Your task to perform on an android device: check the backup settings in the google photos Image 0: 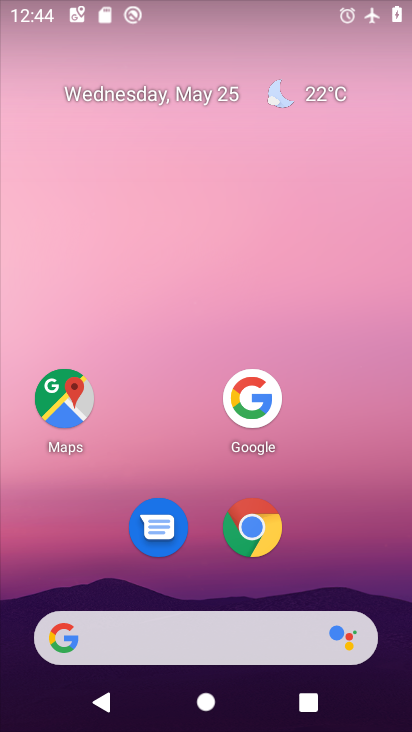
Step 0: drag from (156, 645) to (307, 95)
Your task to perform on an android device: check the backup settings in the google photos Image 1: 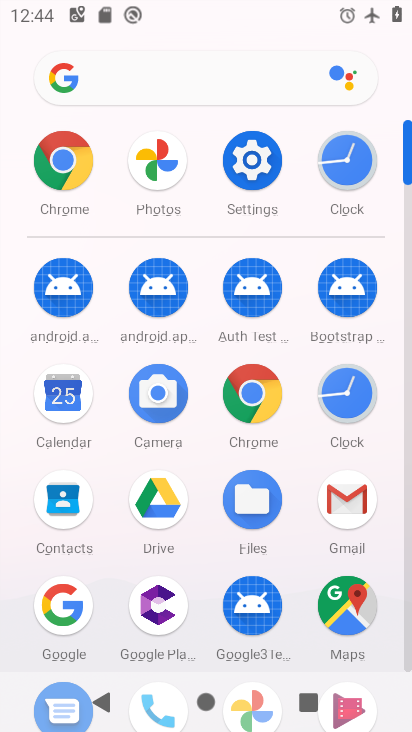
Step 1: click (150, 166)
Your task to perform on an android device: check the backup settings in the google photos Image 2: 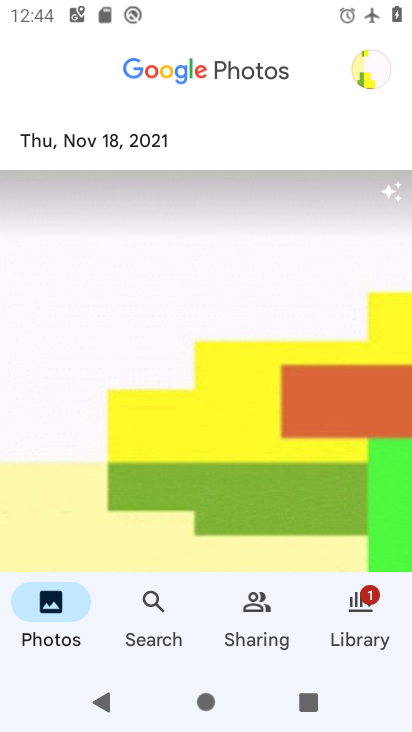
Step 2: click (375, 72)
Your task to perform on an android device: check the backup settings in the google photos Image 3: 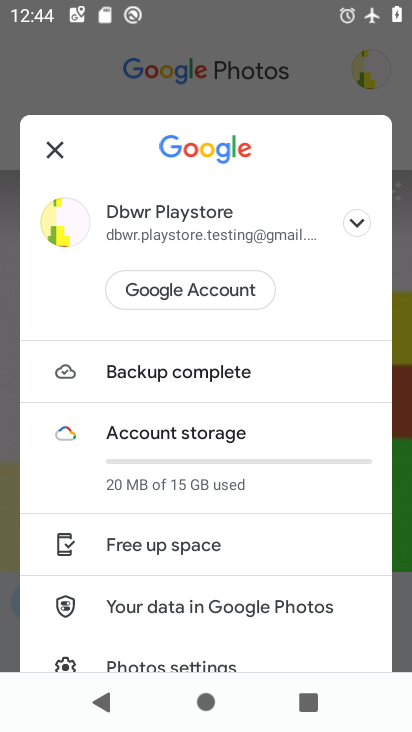
Step 3: drag from (193, 594) to (312, 377)
Your task to perform on an android device: check the backup settings in the google photos Image 4: 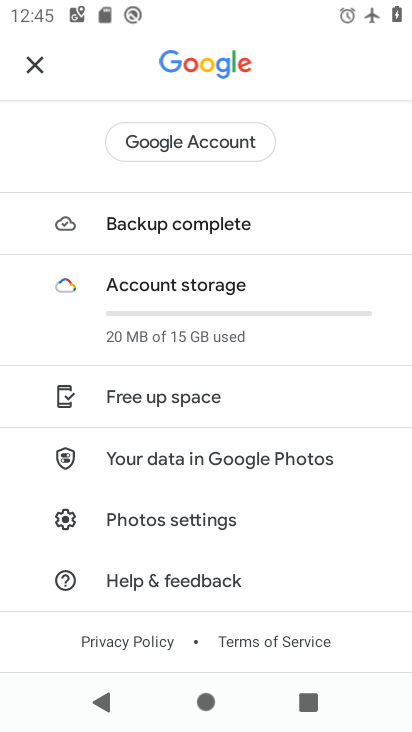
Step 4: click (194, 519)
Your task to perform on an android device: check the backup settings in the google photos Image 5: 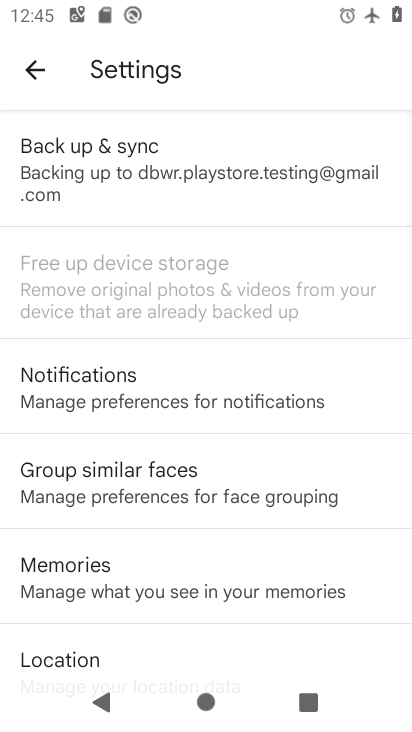
Step 5: click (217, 175)
Your task to perform on an android device: check the backup settings in the google photos Image 6: 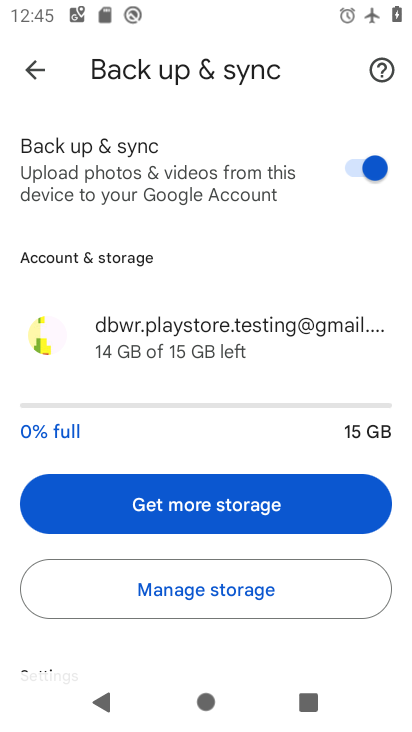
Step 6: task complete